Your task to perform on an android device: empty trash in google photos Image 0: 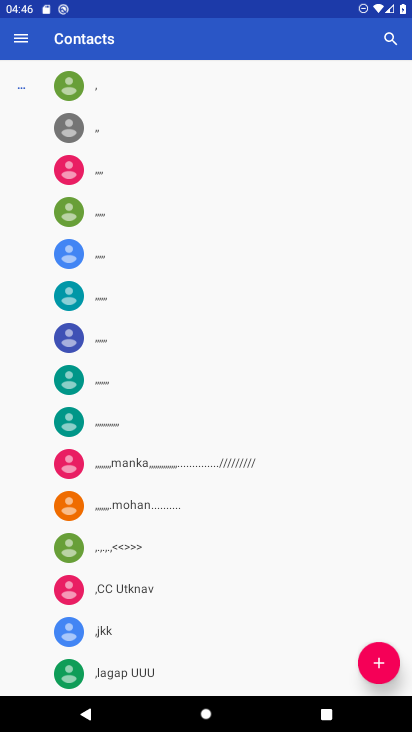
Step 0: press home button
Your task to perform on an android device: empty trash in google photos Image 1: 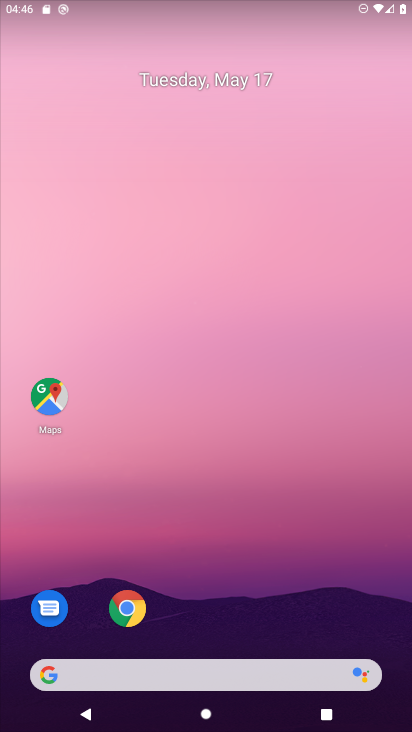
Step 1: drag from (189, 655) to (209, 264)
Your task to perform on an android device: empty trash in google photos Image 2: 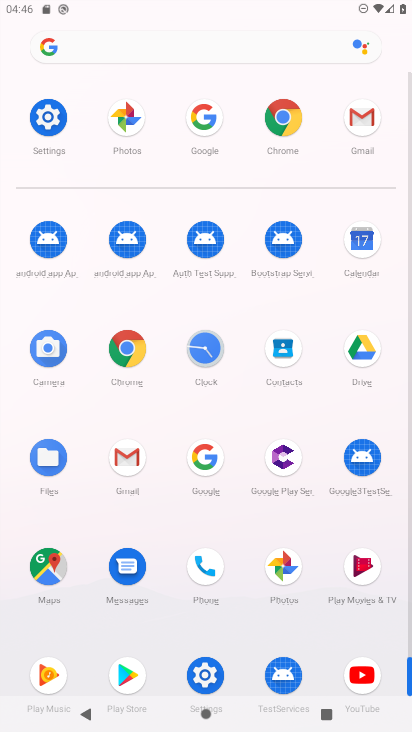
Step 2: click (125, 456)
Your task to perform on an android device: empty trash in google photos Image 3: 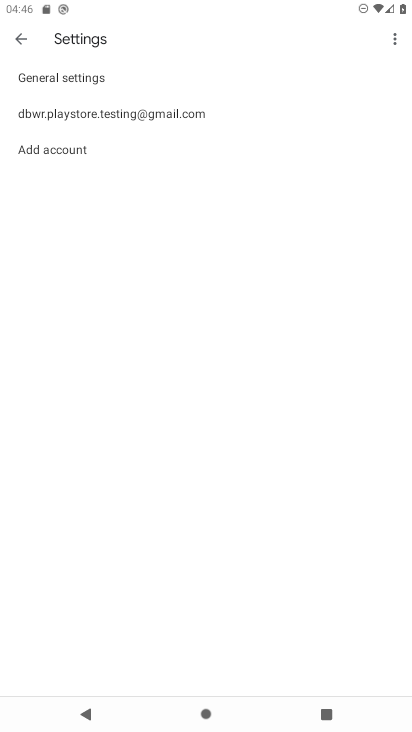
Step 3: click (21, 36)
Your task to perform on an android device: empty trash in google photos Image 4: 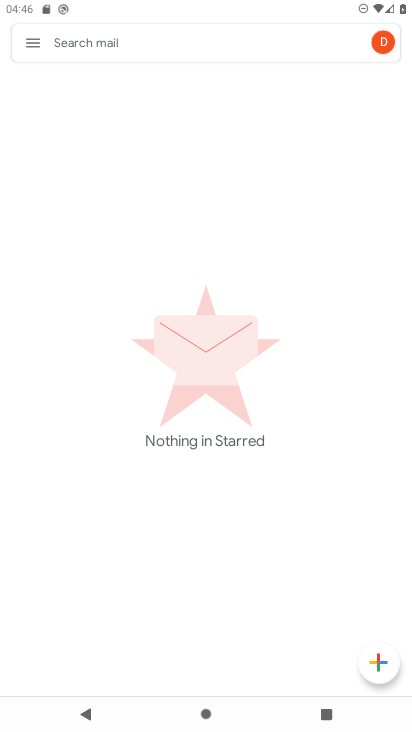
Step 4: press home button
Your task to perform on an android device: empty trash in google photos Image 5: 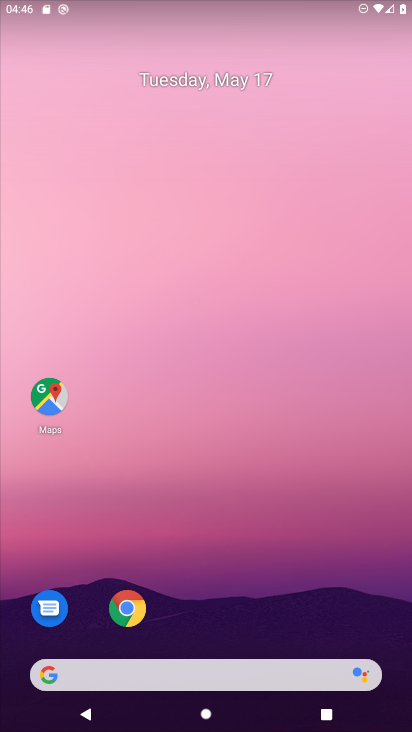
Step 5: drag from (185, 631) to (202, 329)
Your task to perform on an android device: empty trash in google photos Image 6: 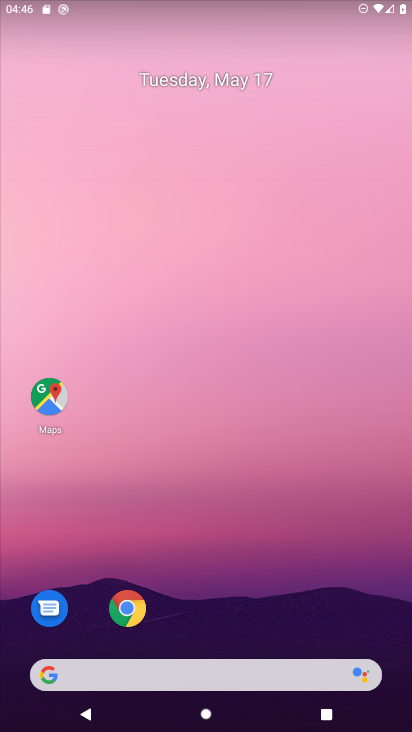
Step 6: drag from (271, 655) to (307, 308)
Your task to perform on an android device: empty trash in google photos Image 7: 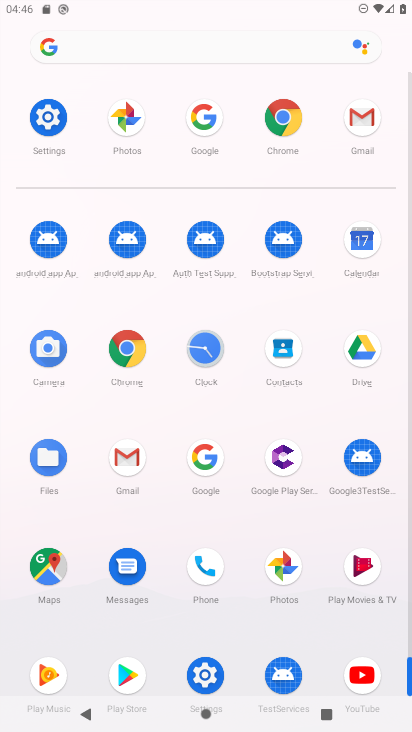
Step 7: click (287, 569)
Your task to perform on an android device: empty trash in google photos Image 8: 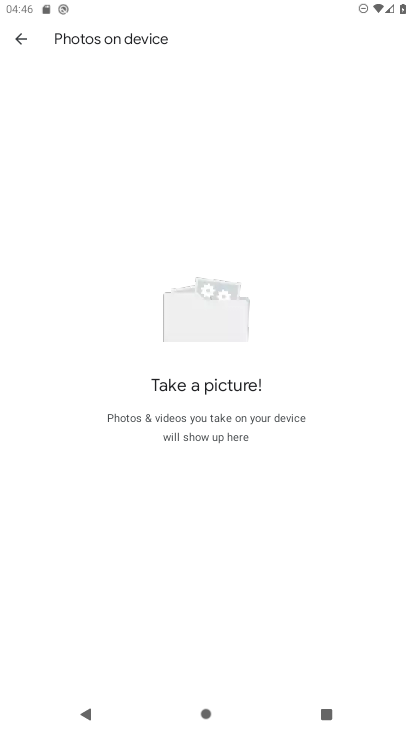
Step 8: click (14, 38)
Your task to perform on an android device: empty trash in google photos Image 9: 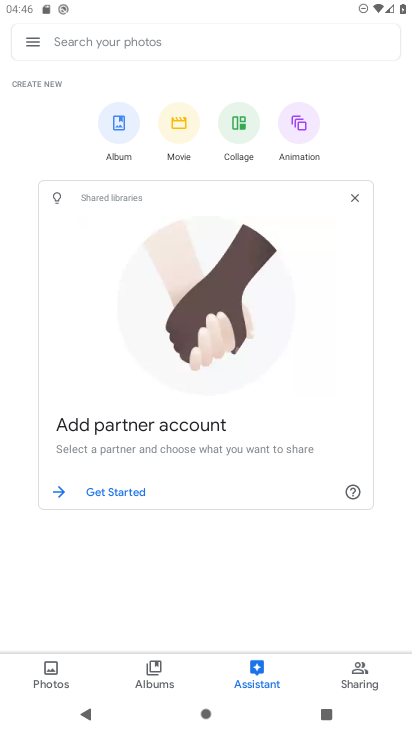
Step 9: click (36, 42)
Your task to perform on an android device: empty trash in google photos Image 10: 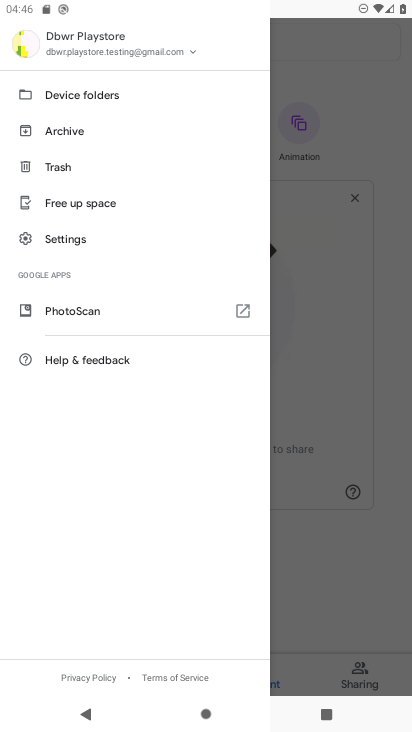
Step 10: click (59, 156)
Your task to perform on an android device: empty trash in google photos Image 11: 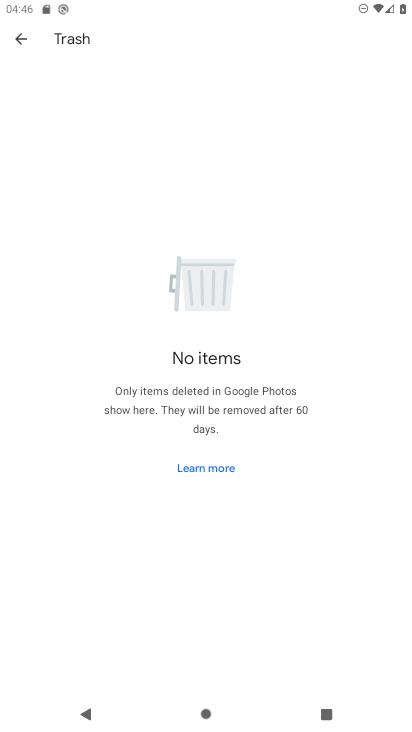
Step 11: task complete